Your task to perform on an android device: turn on translation in the chrome app Image 0: 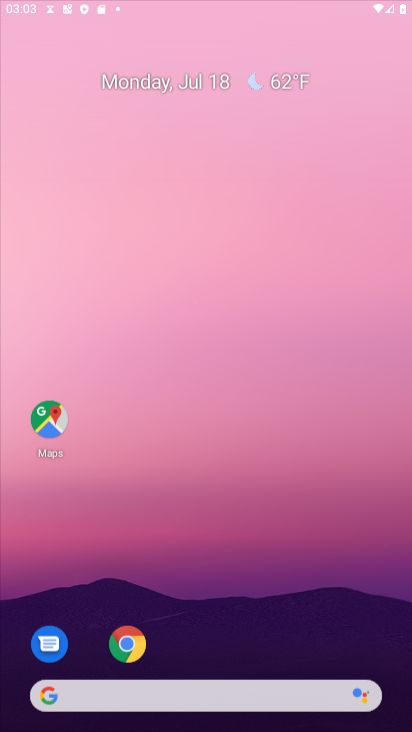
Step 0: drag from (294, 658) to (190, 157)
Your task to perform on an android device: turn on translation in the chrome app Image 1: 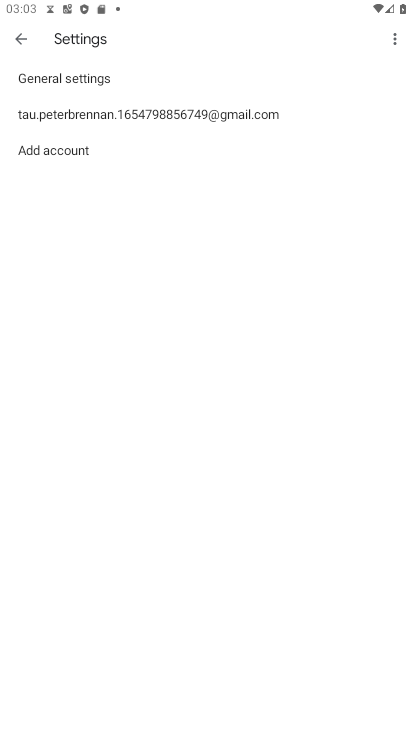
Step 1: click (18, 31)
Your task to perform on an android device: turn on translation in the chrome app Image 2: 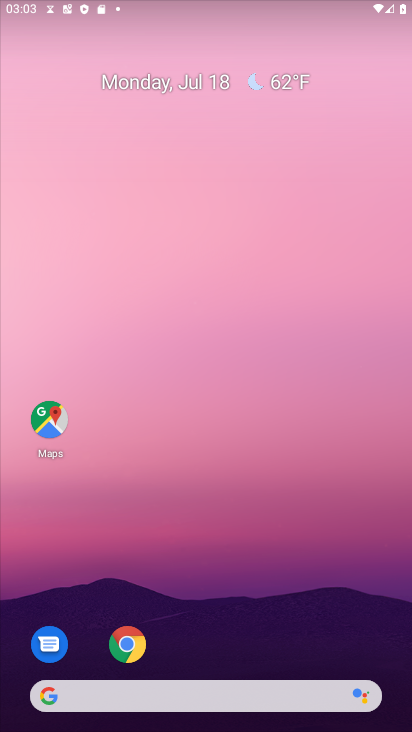
Step 2: drag from (250, 627) to (176, 109)
Your task to perform on an android device: turn on translation in the chrome app Image 3: 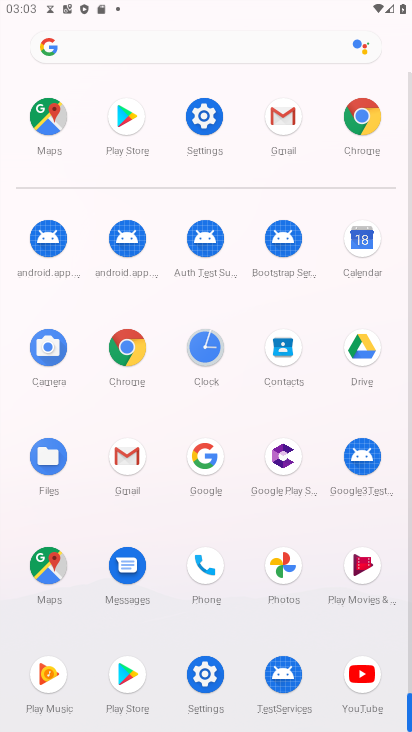
Step 3: click (357, 120)
Your task to perform on an android device: turn on translation in the chrome app Image 4: 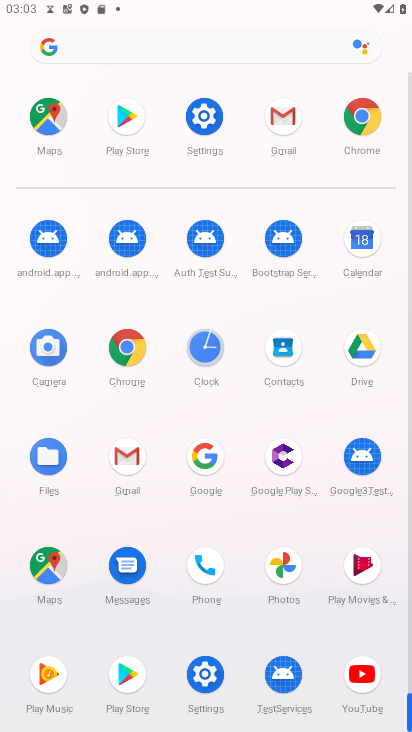
Step 4: click (355, 116)
Your task to perform on an android device: turn on translation in the chrome app Image 5: 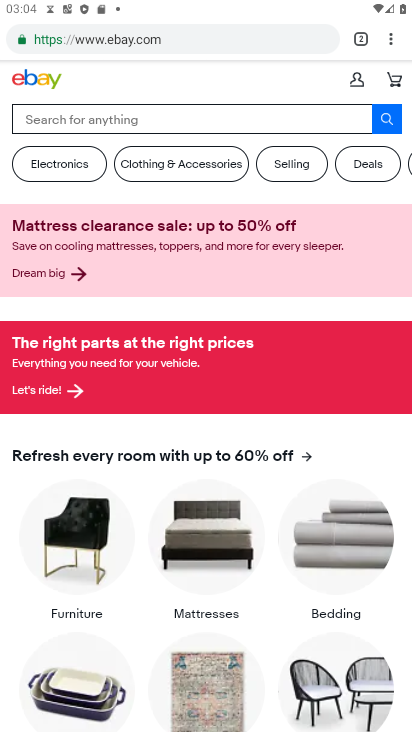
Step 5: click (398, 23)
Your task to perform on an android device: turn on translation in the chrome app Image 6: 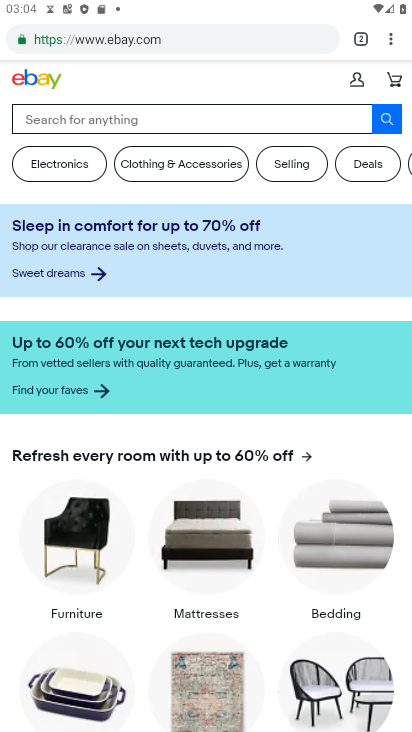
Step 6: drag from (394, 30) to (253, 456)
Your task to perform on an android device: turn on translation in the chrome app Image 7: 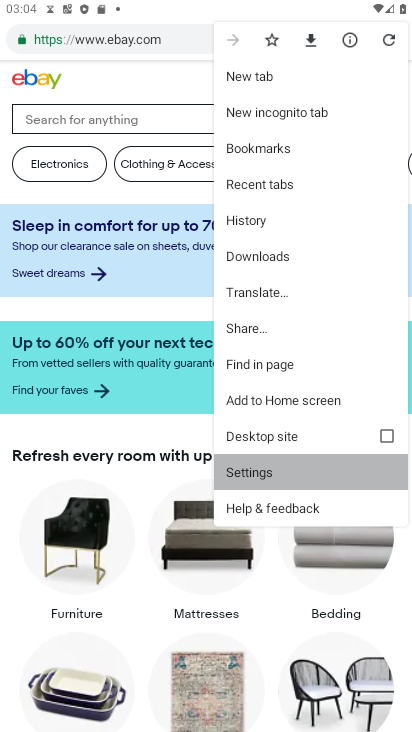
Step 7: click (253, 456)
Your task to perform on an android device: turn on translation in the chrome app Image 8: 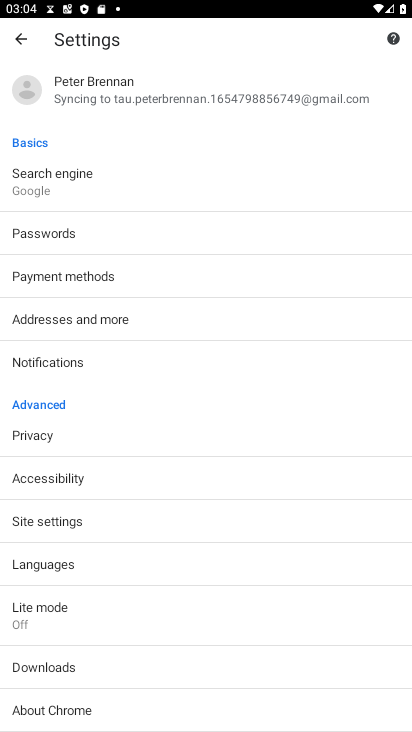
Step 8: click (68, 566)
Your task to perform on an android device: turn on translation in the chrome app Image 9: 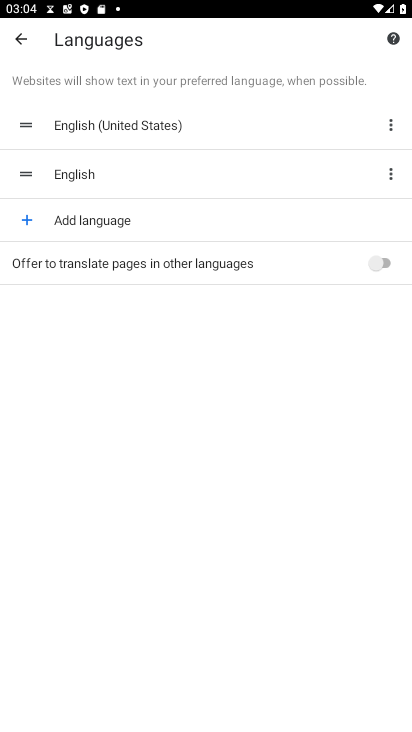
Step 9: click (16, 43)
Your task to perform on an android device: turn on translation in the chrome app Image 10: 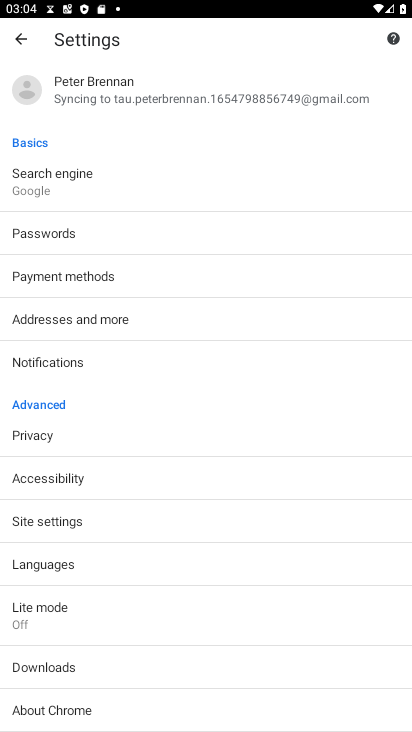
Step 10: click (25, 54)
Your task to perform on an android device: turn on translation in the chrome app Image 11: 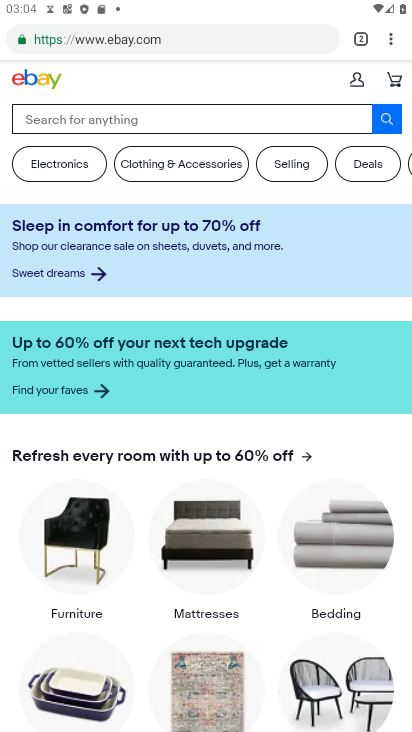
Step 11: drag from (384, 37) to (248, 467)
Your task to perform on an android device: turn on translation in the chrome app Image 12: 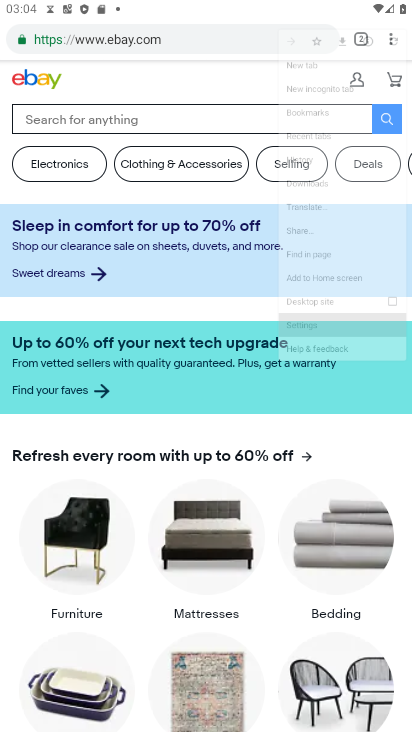
Step 12: click (256, 466)
Your task to perform on an android device: turn on translation in the chrome app Image 13: 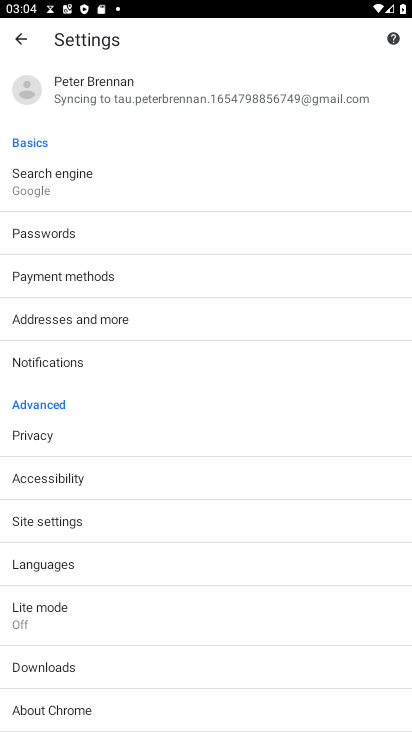
Step 13: click (51, 549)
Your task to perform on an android device: turn on translation in the chrome app Image 14: 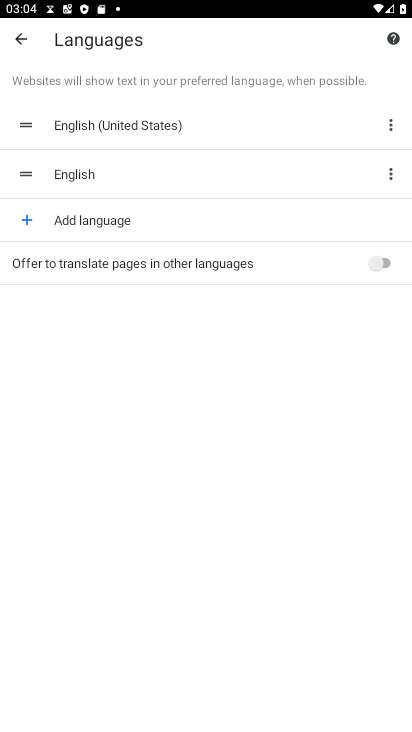
Step 14: click (385, 254)
Your task to perform on an android device: turn on translation in the chrome app Image 15: 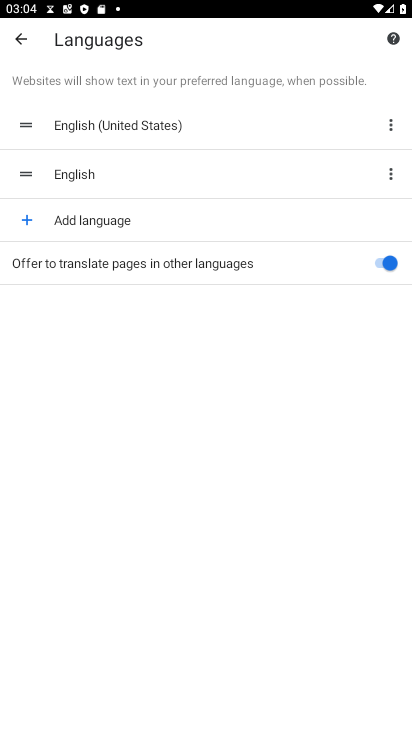
Step 15: task complete